Your task to perform on an android device: Go to Reddit.com Image 0: 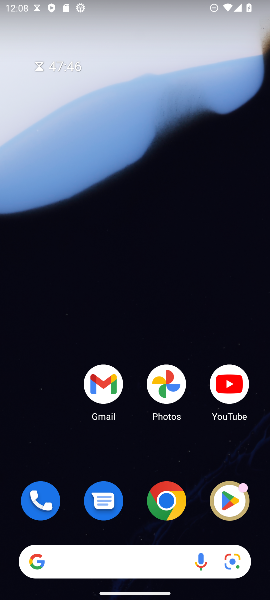
Step 0: click (170, 502)
Your task to perform on an android device: Go to Reddit.com Image 1: 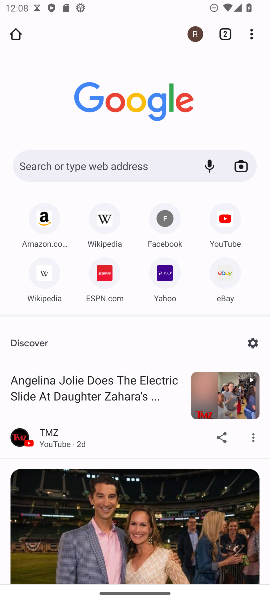
Step 1: click (97, 160)
Your task to perform on an android device: Go to Reddit.com Image 2: 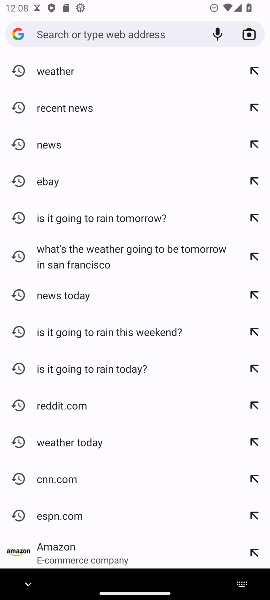
Step 2: type "www.reddit.com"
Your task to perform on an android device: Go to Reddit.com Image 3: 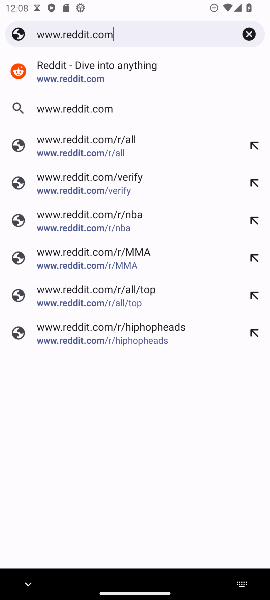
Step 3: click (71, 69)
Your task to perform on an android device: Go to Reddit.com Image 4: 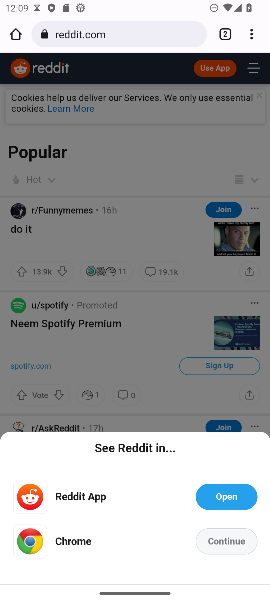
Step 4: click (217, 550)
Your task to perform on an android device: Go to Reddit.com Image 5: 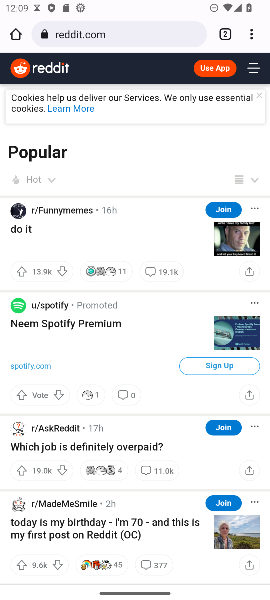
Step 5: task complete